Your task to perform on an android device: Show me popular videos on Youtube Image 0: 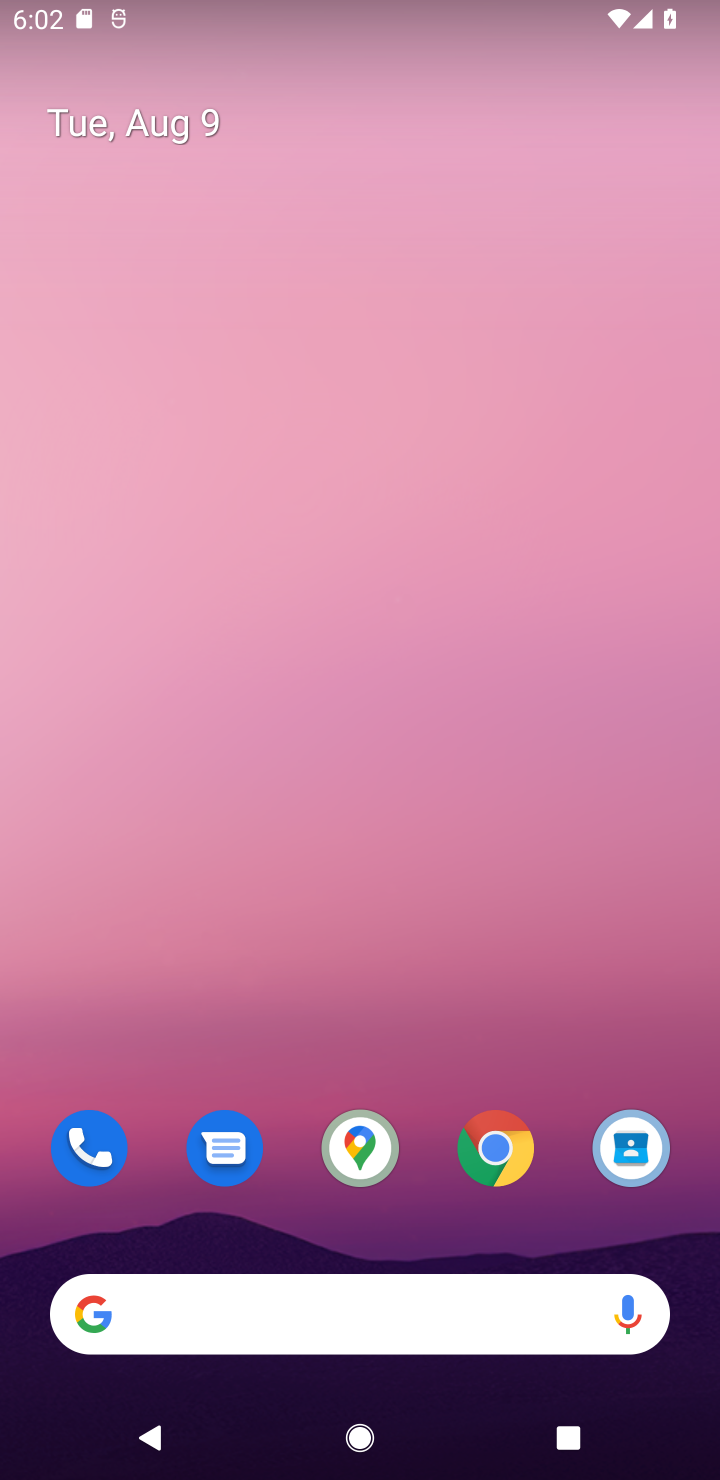
Step 0: drag from (298, 1183) to (442, 65)
Your task to perform on an android device: Show me popular videos on Youtube Image 1: 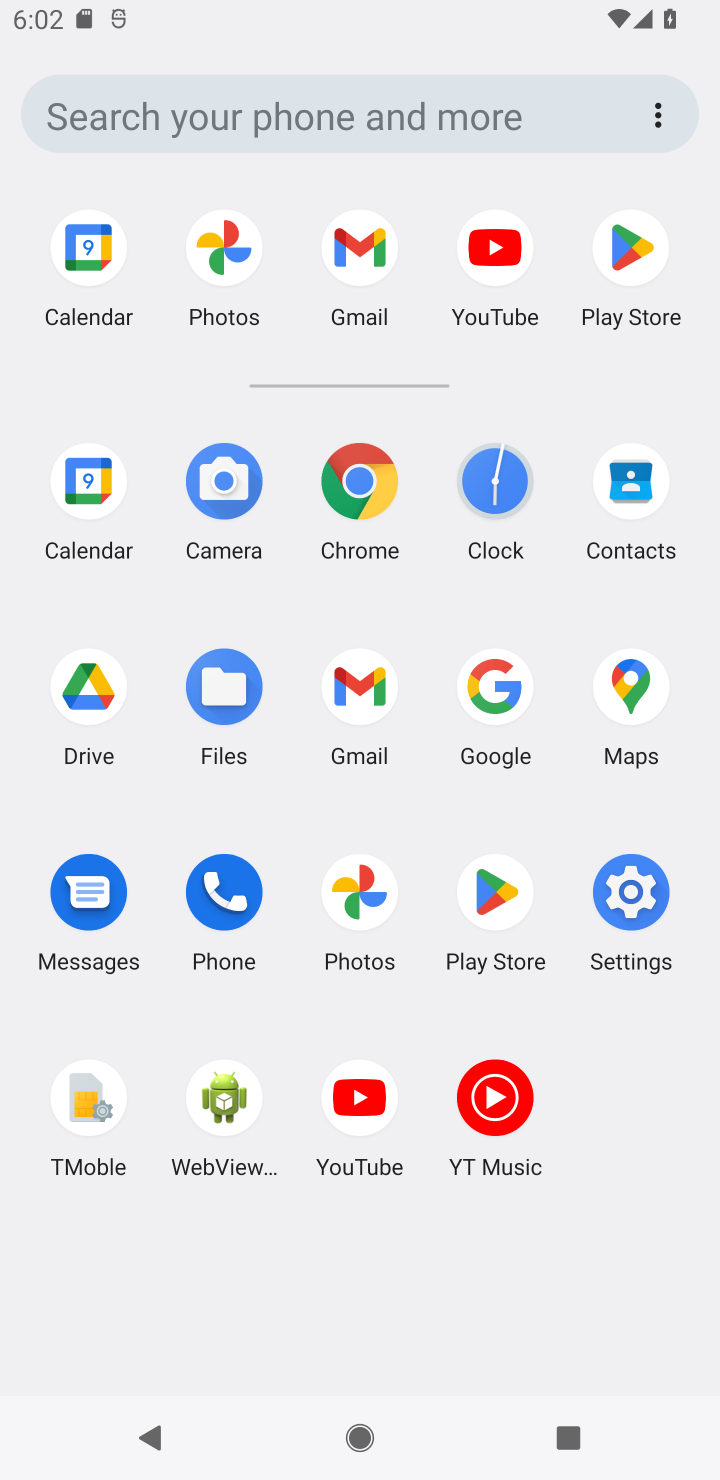
Step 1: click (363, 1136)
Your task to perform on an android device: Show me popular videos on Youtube Image 2: 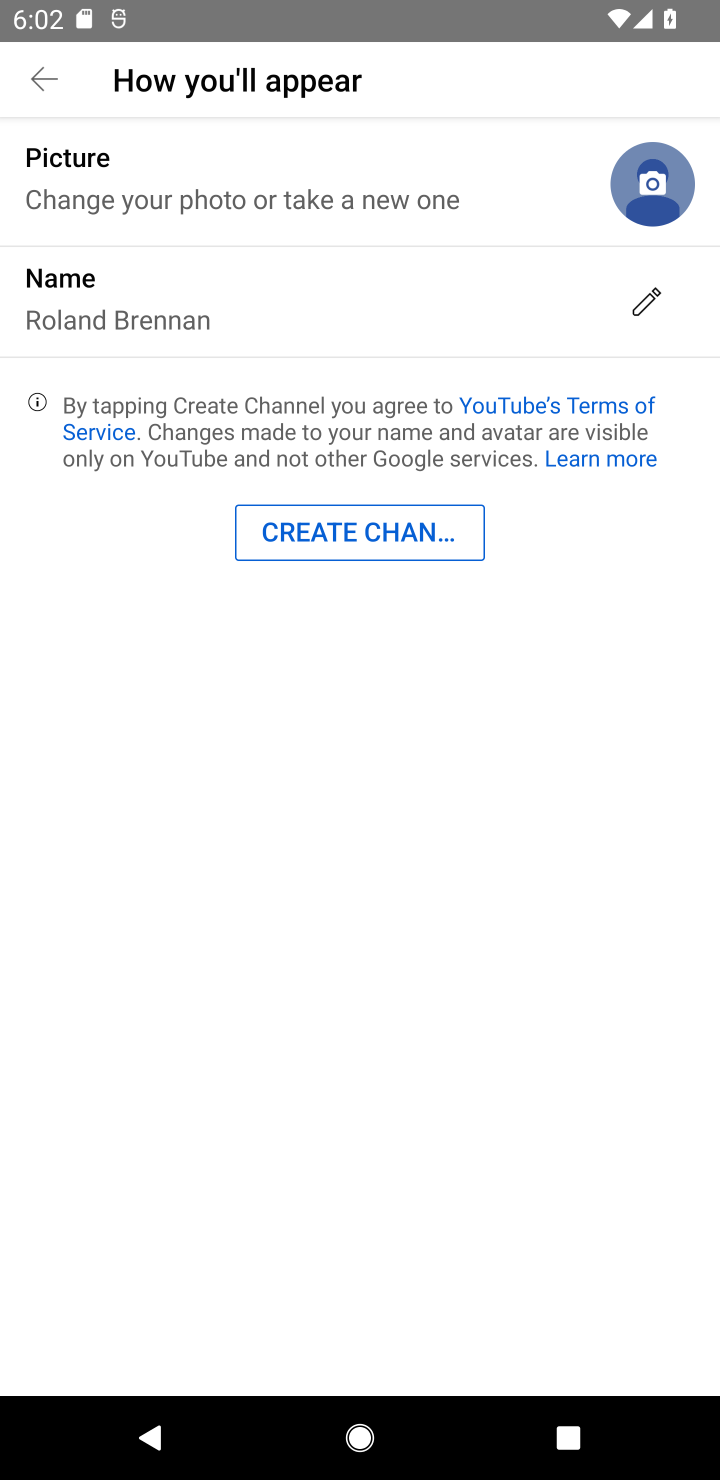
Step 2: click (39, 94)
Your task to perform on an android device: Show me popular videos on Youtube Image 3: 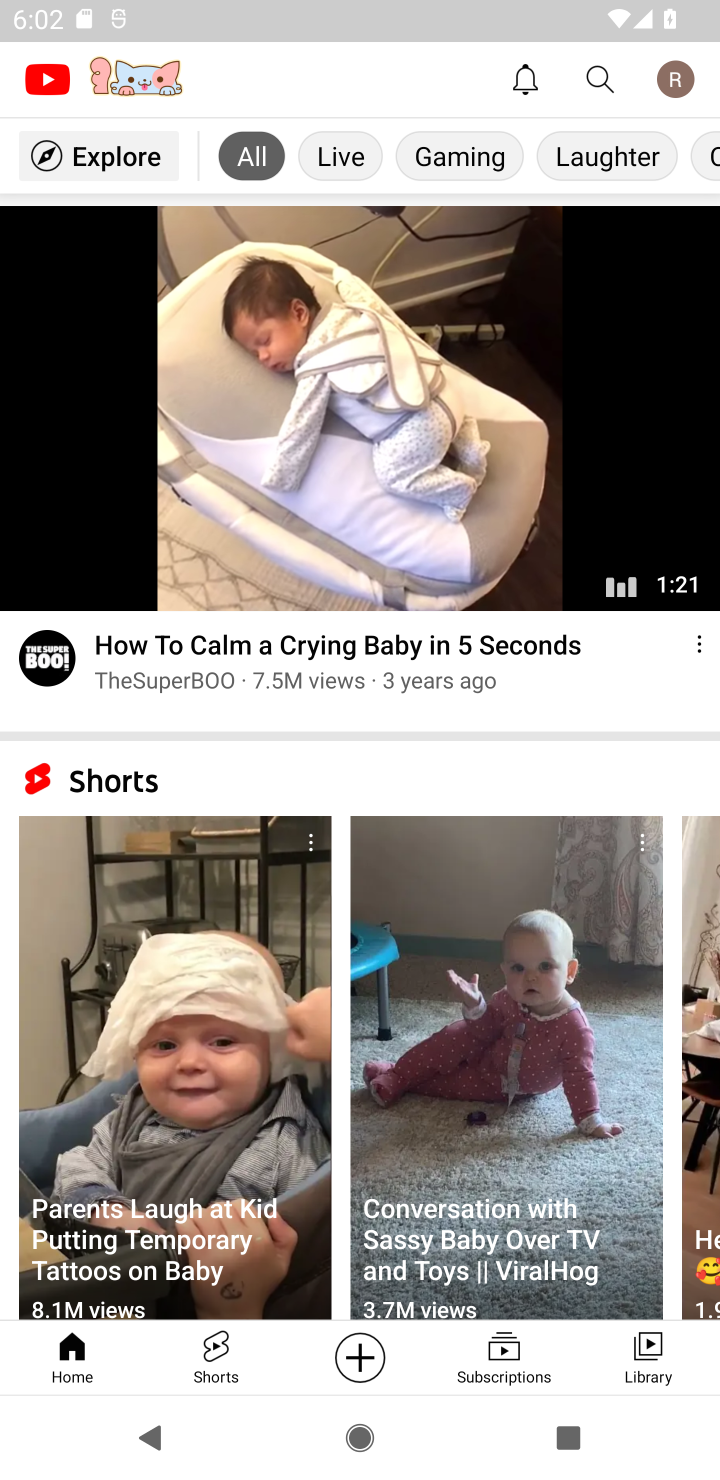
Step 3: click (100, 151)
Your task to perform on an android device: Show me popular videos on Youtube Image 4: 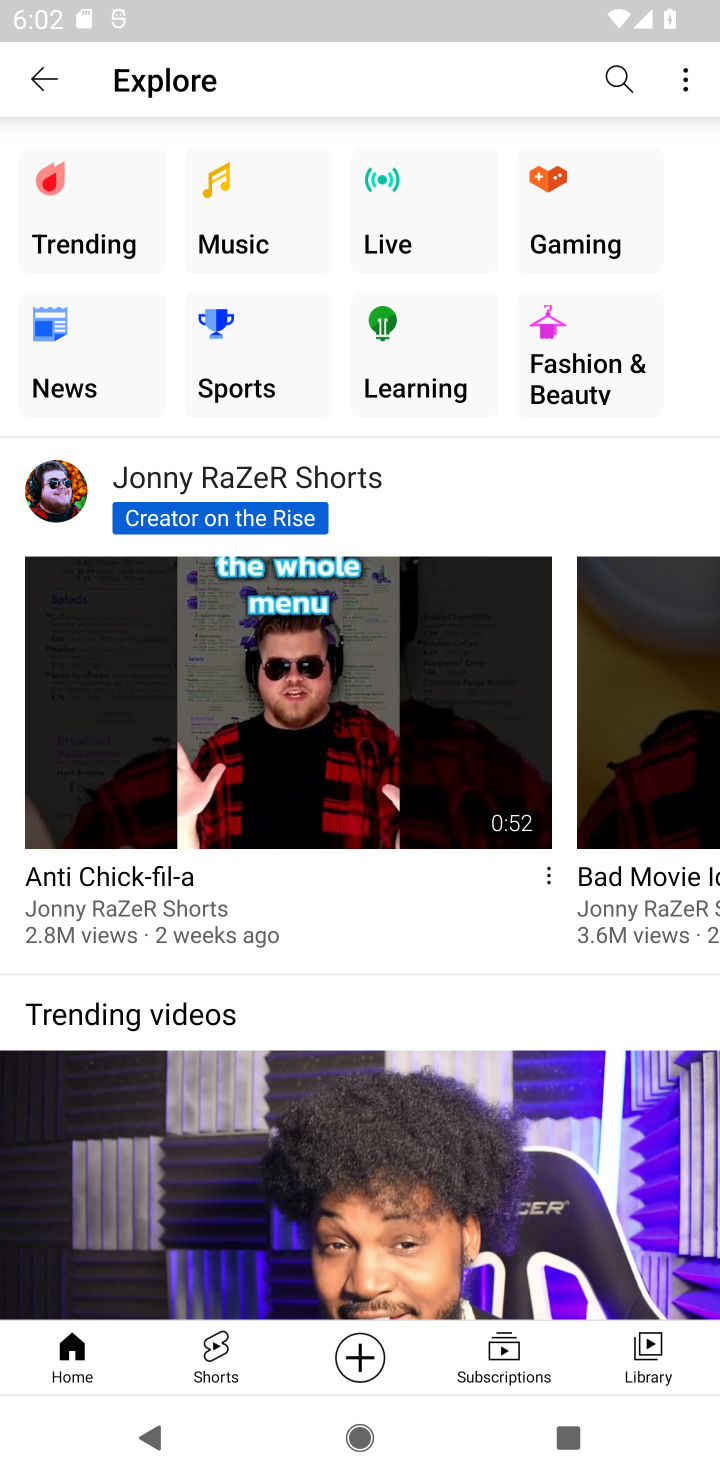
Step 4: click (60, 217)
Your task to perform on an android device: Show me popular videos on Youtube Image 5: 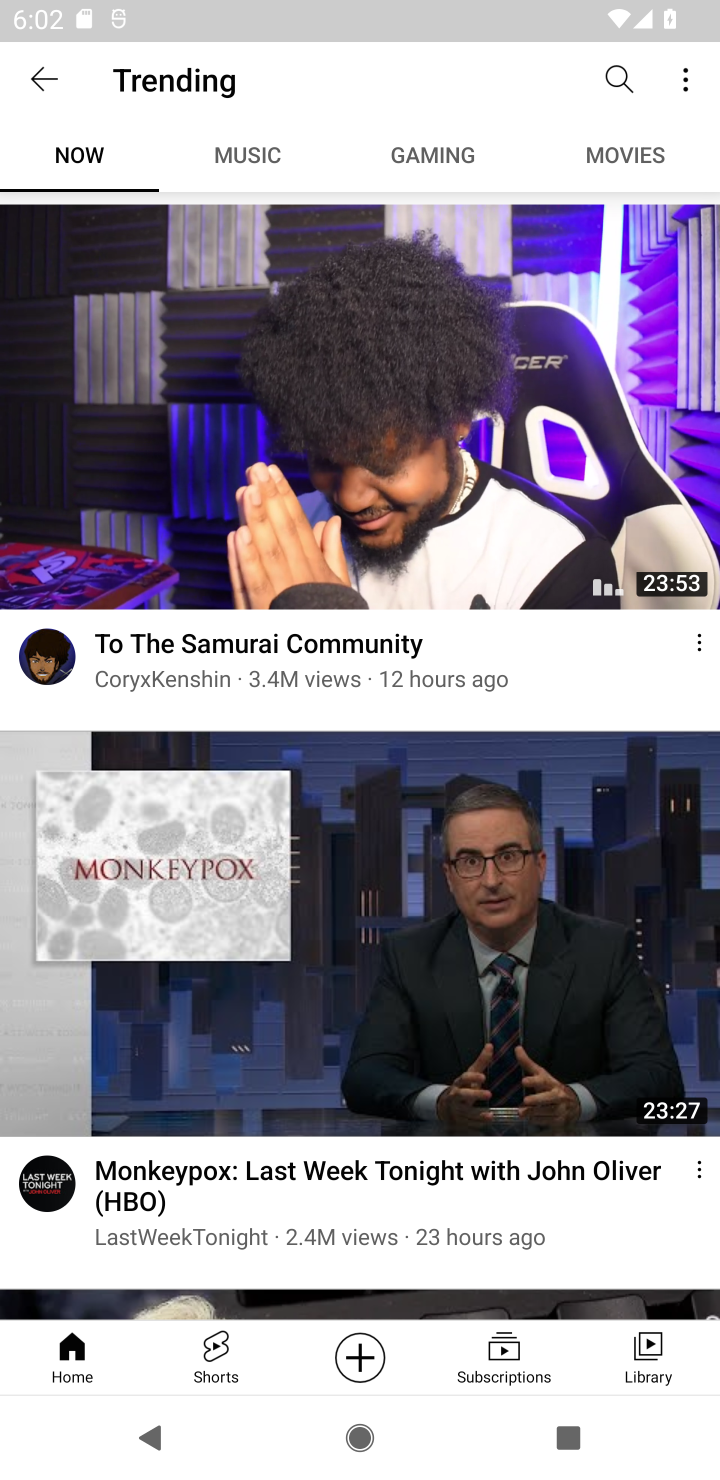
Step 5: task complete